Your task to perform on an android device: Open Google Chrome Image 0: 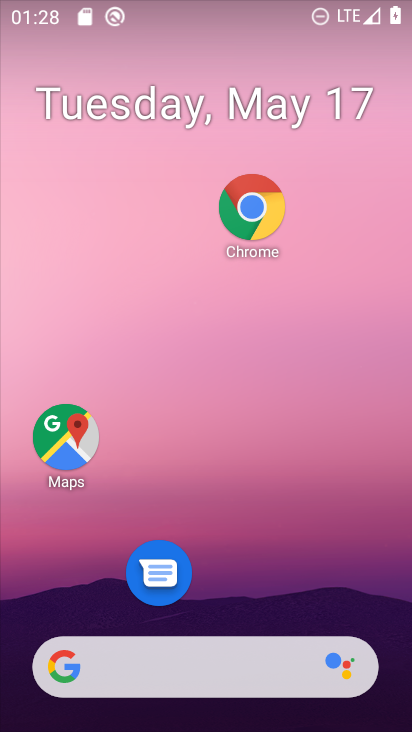
Step 0: drag from (234, 685) to (253, 61)
Your task to perform on an android device: Open Google Chrome Image 1: 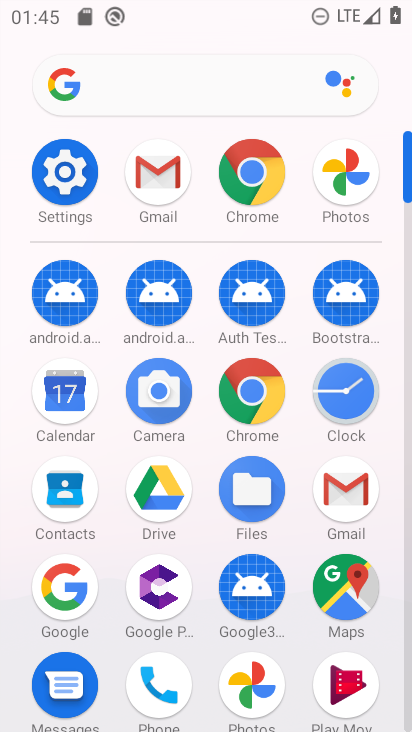
Step 1: click (263, 400)
Your task to perform on an android device: Open Google Chrome Image 2: 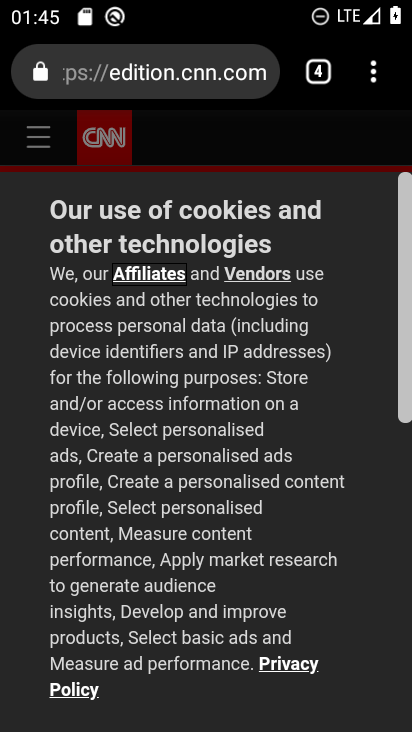
Step 2: drag from (371, 58) to (202, 151)
Your task to perform on an android device: Open Google Chrome Image 3: 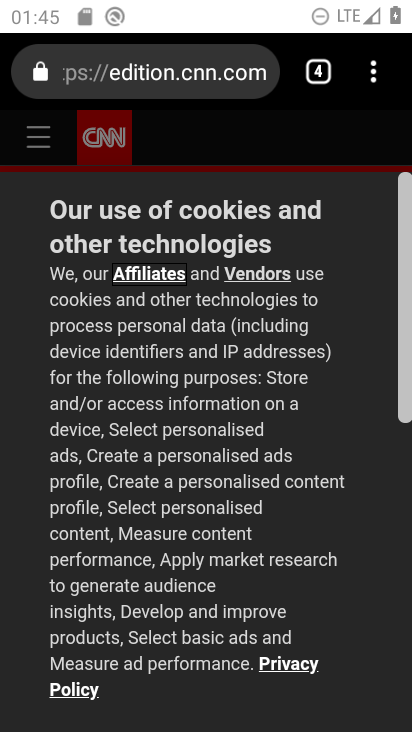
Step 3: click (198, 151)
Your task to perform on an android device: Open Google Chrome Image 4: 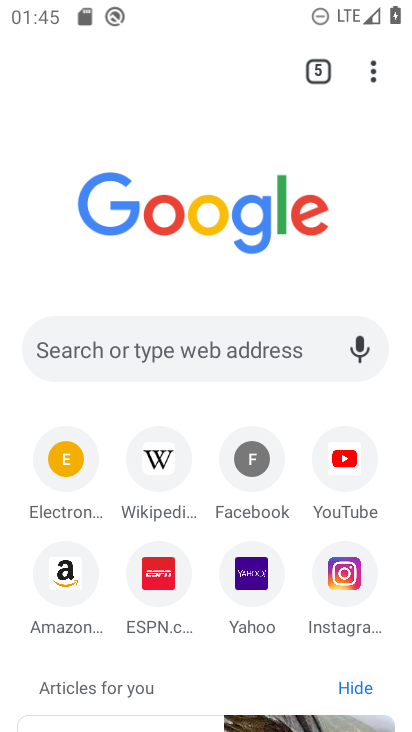
Step 4: task complete